Your task to perform on an android device: Open Google Image 0: 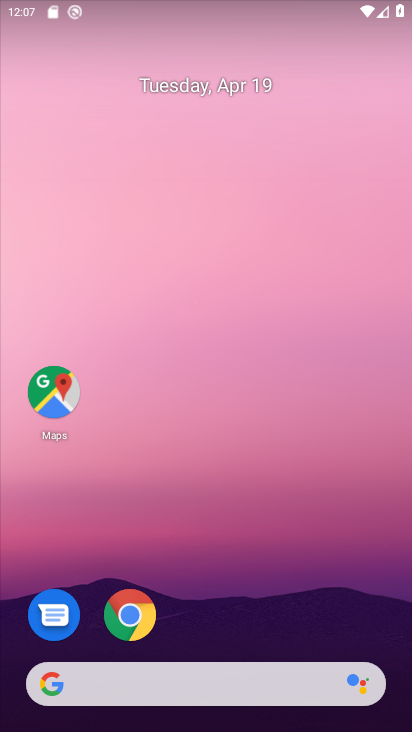
Step 0: drag from (214, 488) to (265, 227)
Your task to perform on an android device: Open Google Image 1: 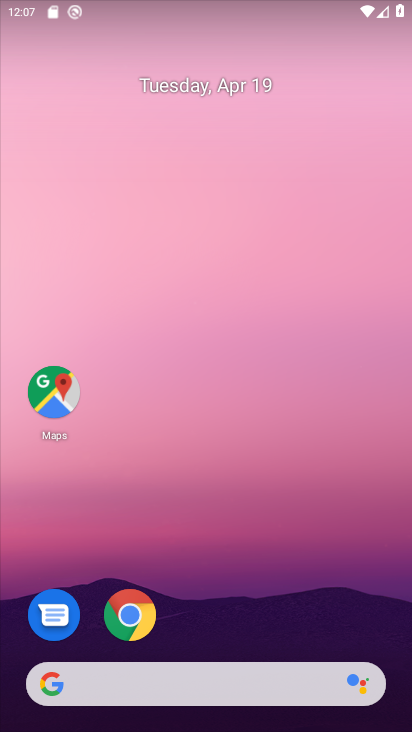
Step 1: drag from (255, 624) to (294, 235)
Your task to perform on an android device: Open Google Image 2: 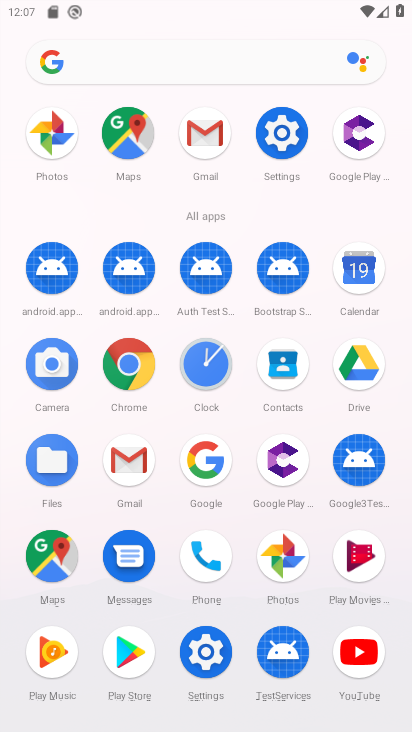
Step 2: click (197, 459)
Your task to perform on an android device: Open Google Image 3: 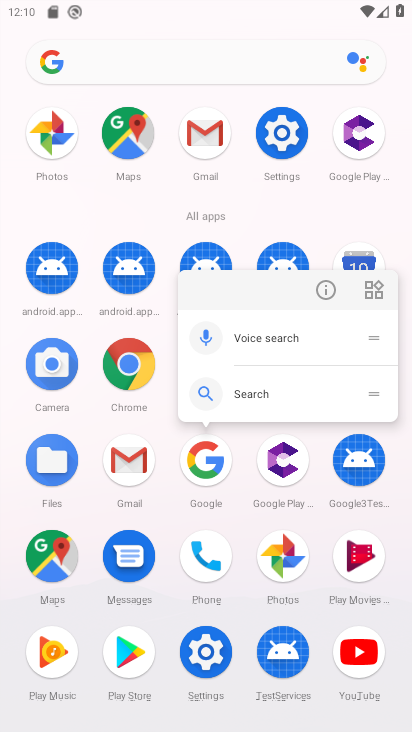
Step 3: click (195, 448)
Your task to perform on an android device: Open Google Image 4: 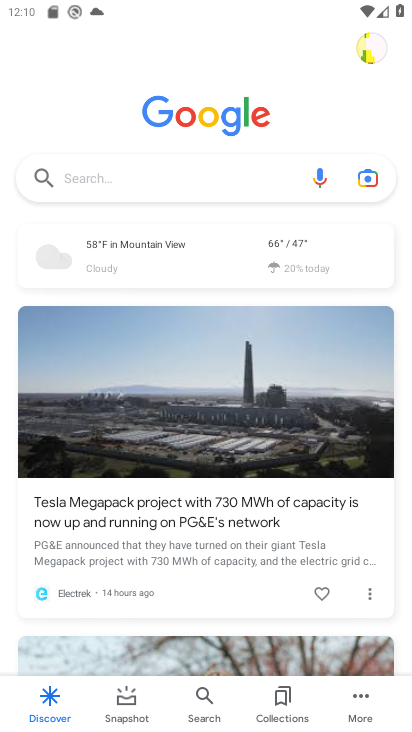
Step 4: task complete